Your task to perform on an android device: Open Google Chrome Image 0: 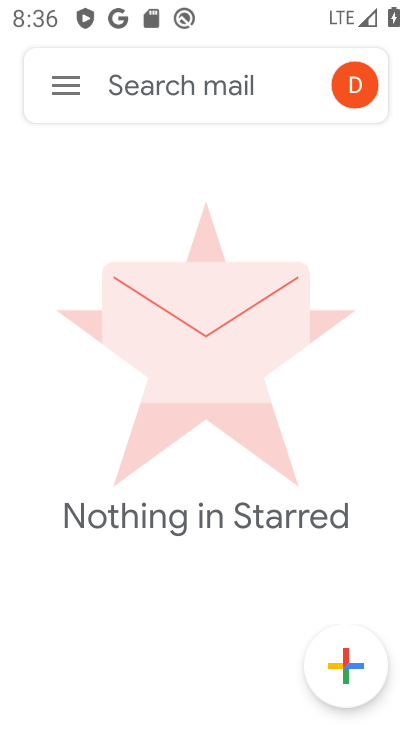
Step 0: press back button
Your task to perform on an android device: Open Google Chrome Image 1: 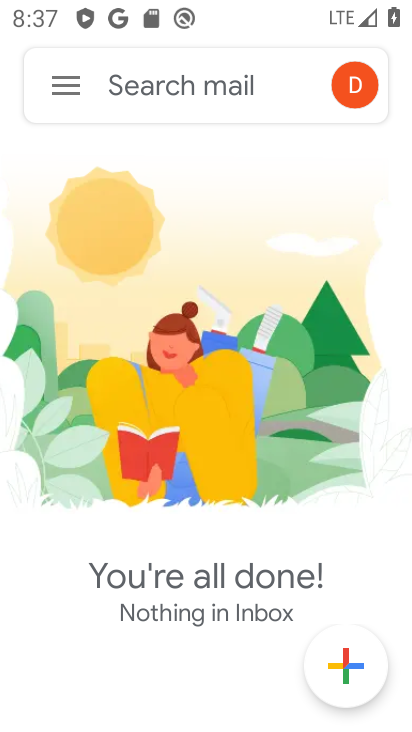
Step 1: press back button
Your task to perform on an android device: Open Google Chrome Image 2: 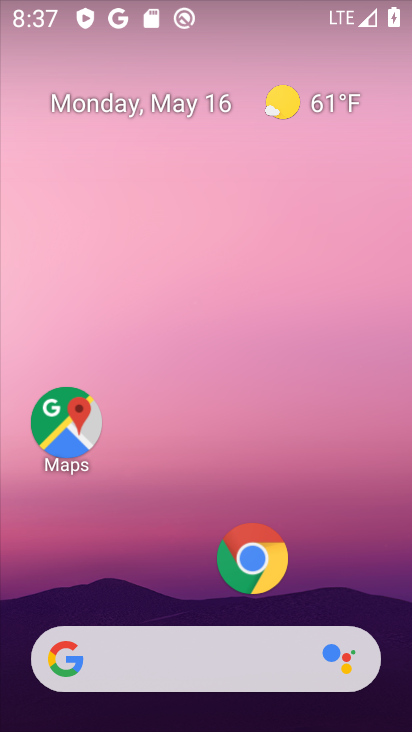
Step 2: click (250, 557)
Your task to perform on an android device: Open Google Chrome Image 3: 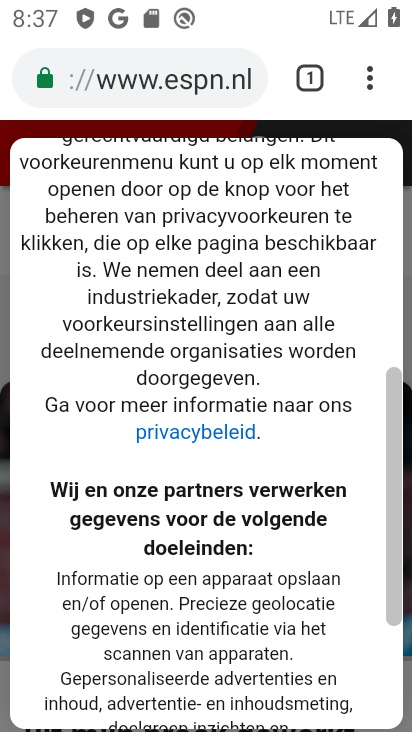
Step 3: task complete